Your task to perform on an android device: Open Wikipedia Image 0: 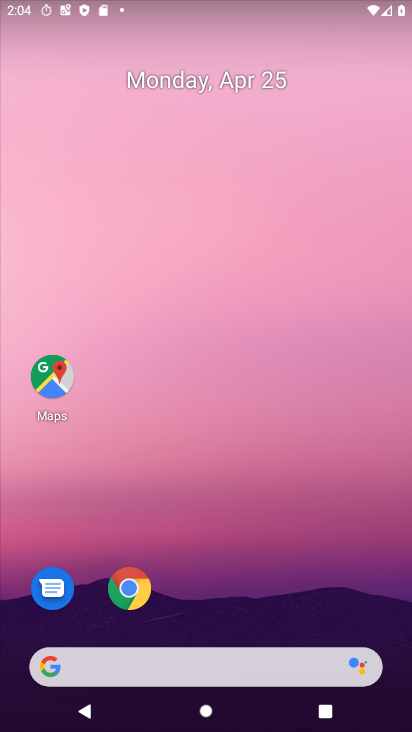
Step 0: click (138, 589)
Your task to perform on an android device: Open Wikipedia Image 1: 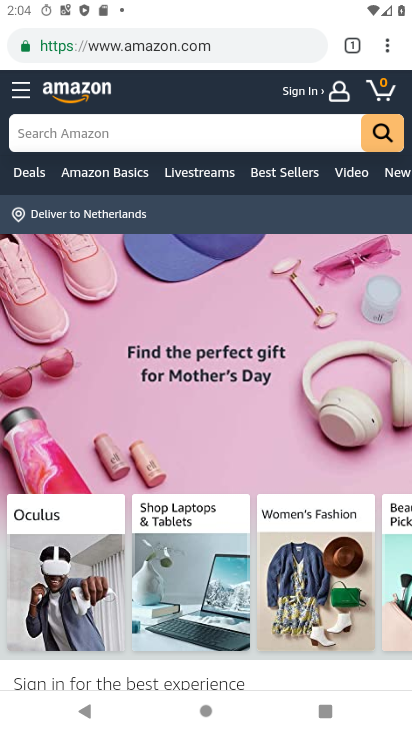
Step 1: click (352, 45)
Your task to perform on an android device: Open Wikipedia Image 2: 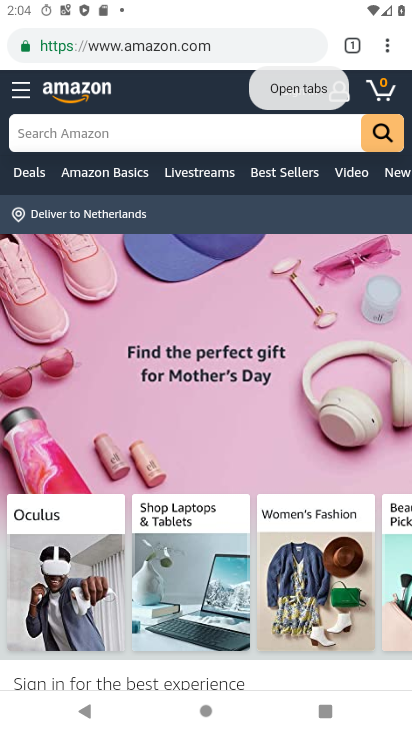
Step 2: click (351, 45)
Your task to perform on an android device: Open Wikipedia Image 3: 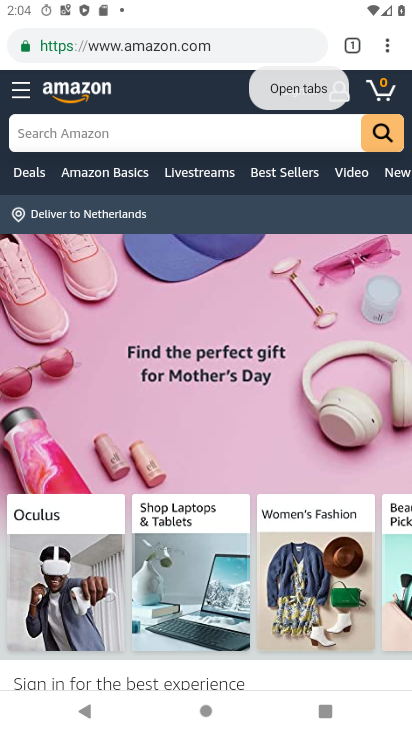
Step 3: click (390, 49)
Your task to perform on an android device: Open Wikipedia Image 4: 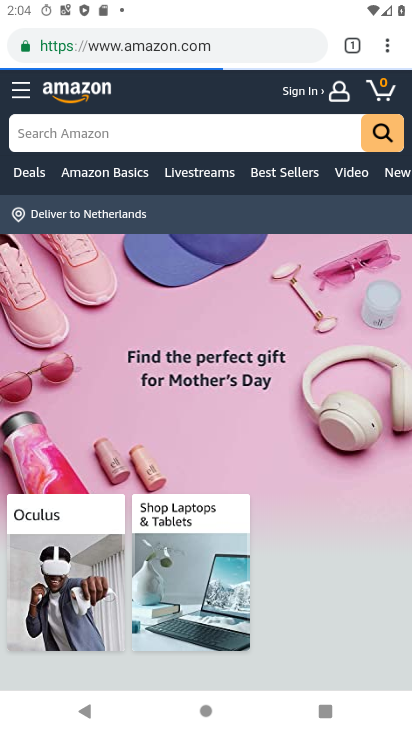
Step 4: click (385, 50)
Your task to perform on an android device: Open Wikipedia Image 5: 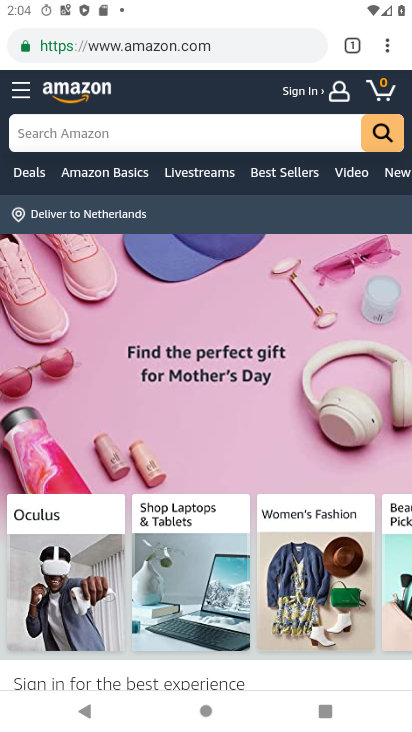
Step 5: click (392, 51)
Your task to perform on an android device: Open Wikipedia Image 6: 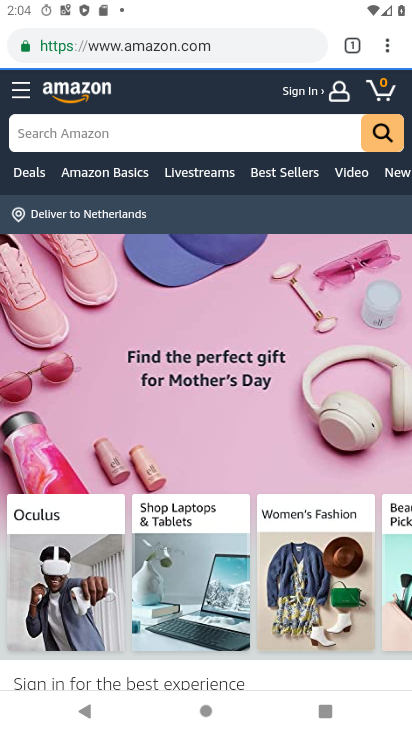
Step 6: click (388, 51)
Your task to perform on an android device: Open Wikipedia Image 7: 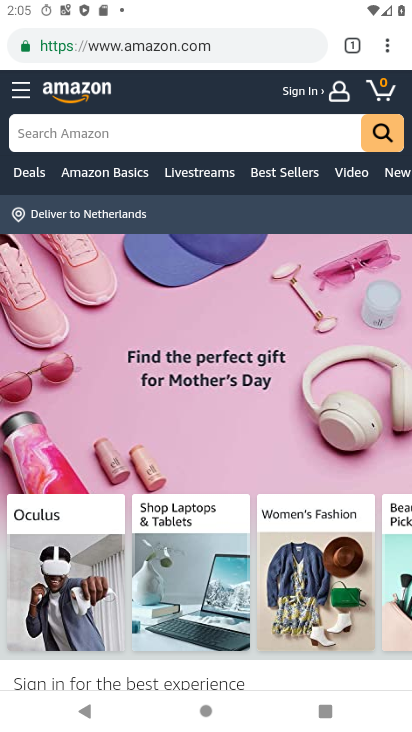
Step 7: click (360, 45)
Your task to perform on an android device: Open Wikipedia Image 8: 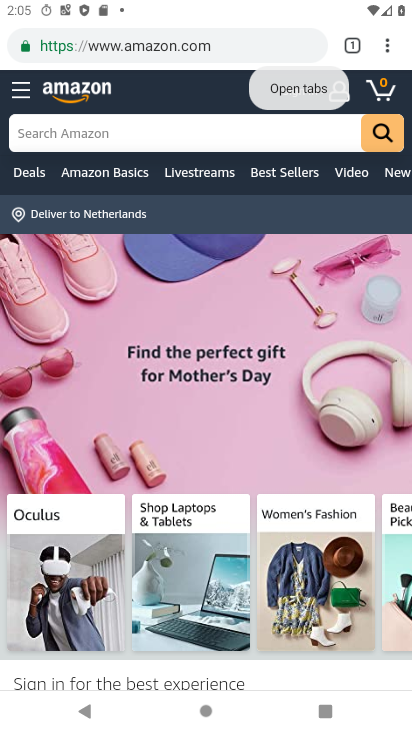
Step 8: click (353, 44)
Your task to perform on an android device: Open Wikipedia Image 9: 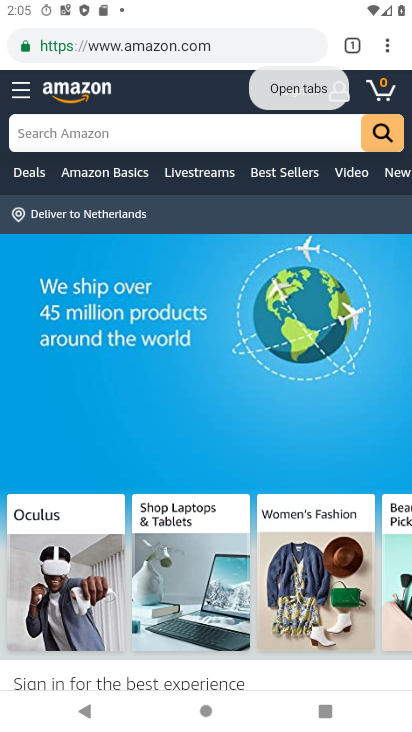
Step 9: click (252, 45)
Your task to perform on an android device: Open Wikipedia Image 10: 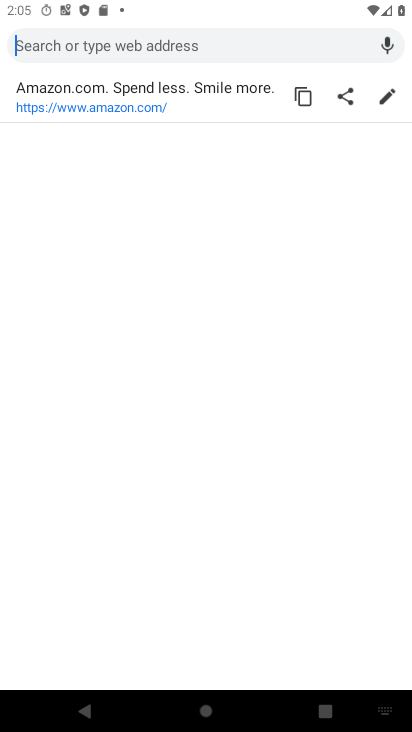
Step 10: type "Wikipedia"
Your task to perform on an android device: Open Wikipedia Image 11: 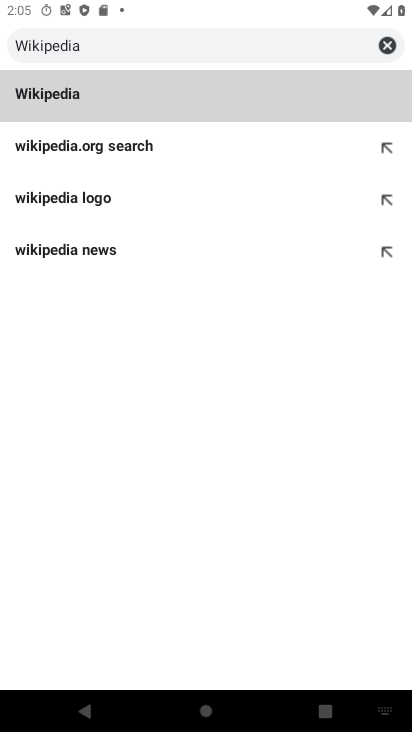
Step 11: click (99, 97)
Your task to perform on an android device: Open Wikipedia Image 12: 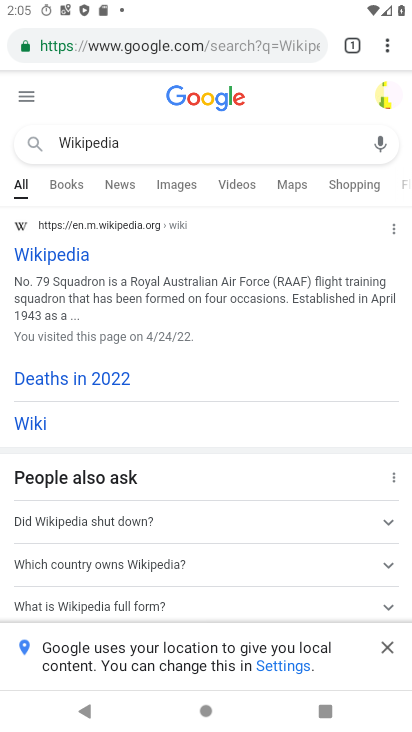
Step 12: click (61, 251)
Your task to perform on an android device: Open Wikipedia Image 13: 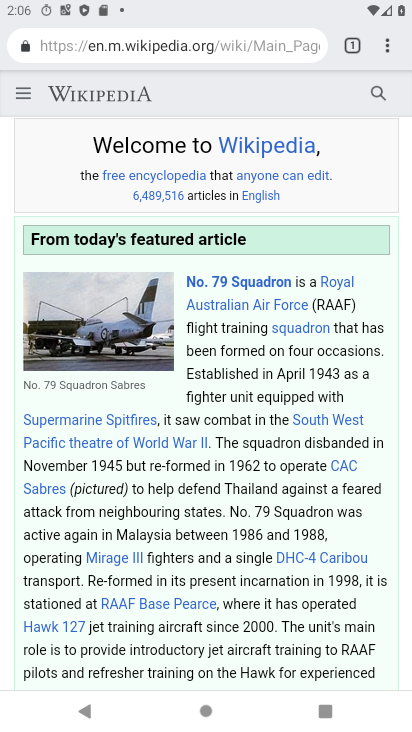
Step 13: task complete